Your task to perform on an android device: empty trash in google photos Image 0: 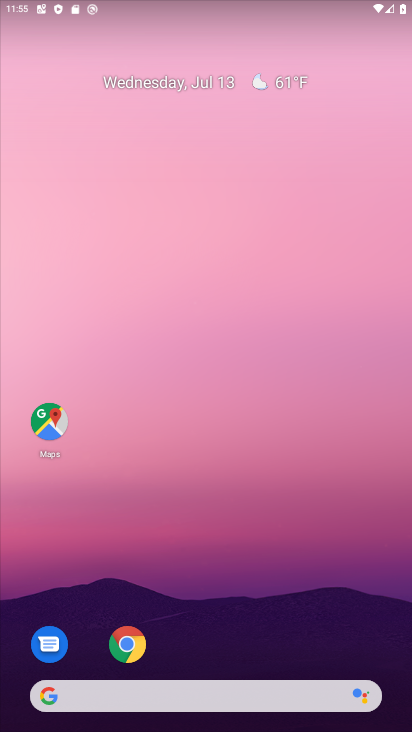
Step 0: drag from (196, 629) to (258, 160)
Your task to perform on an android device: empty trash in google photos Image 1: 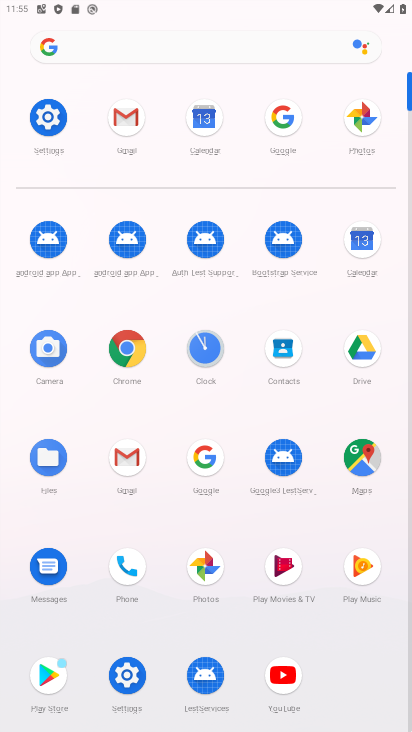
Step 1: click (365, 115)
Your task to perform on an android device: empty trash in google photos Image 2: 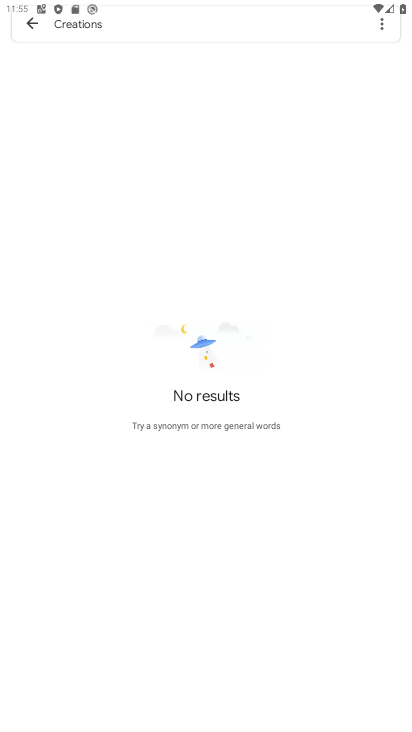
Step 2: press back button
Your task to perform on an android device: empty trash in google photos Image 3: 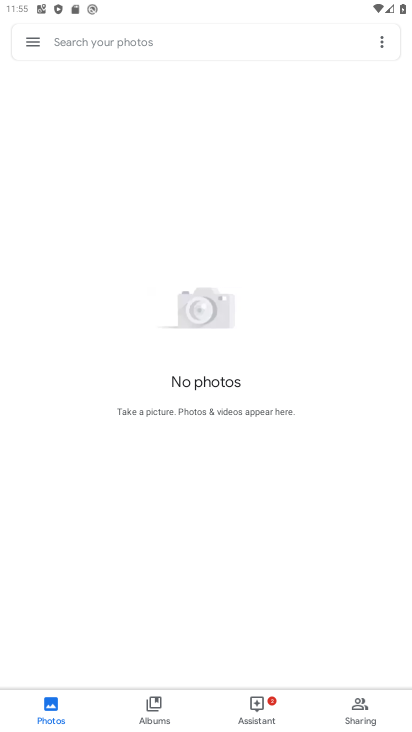
Step 3: click (34, 42)
Your task to perform on an android device: empty trash in google photos Image 4: 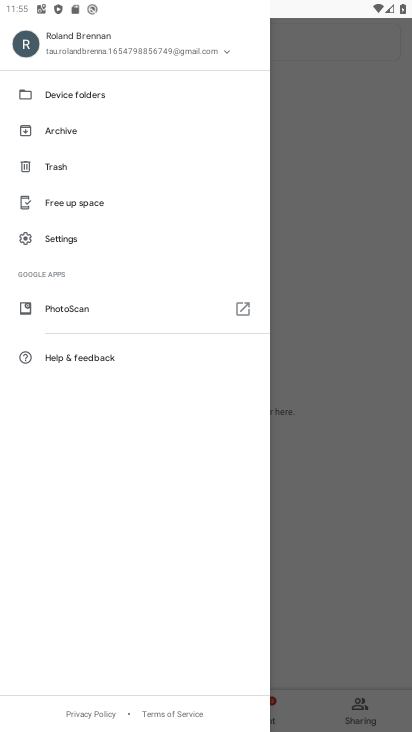
Step 4: click (73, 171)
Your task to perform on an android device: empty trash in google photos Image 5: 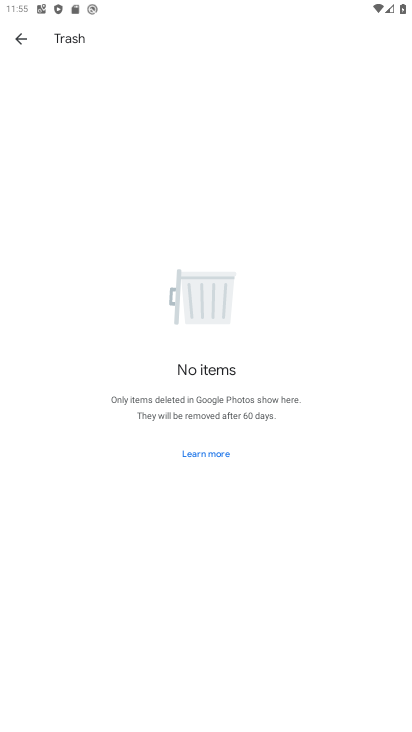
Step 5: task complete